Your task to perform on an android device: When is my next meeting? Image 0: 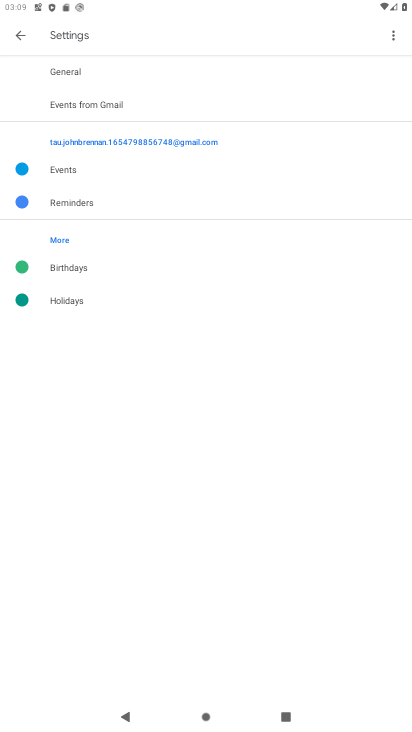
Step 0: click (13, 28)
Your task to perform on an android device: When is my next meeting? Image 1: 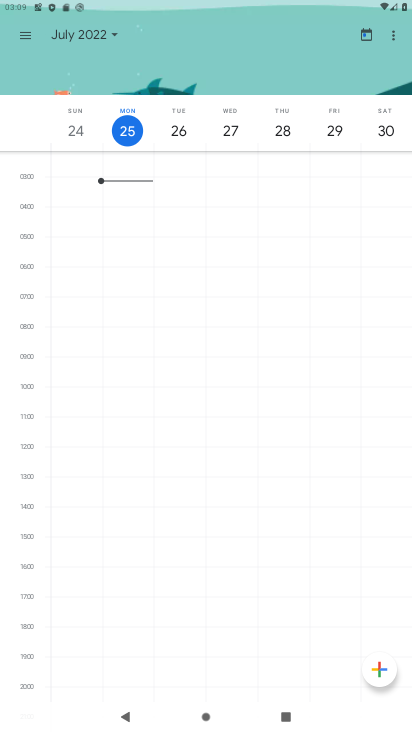
Step 1: click (32, 27)
Your task to perform on an android device: When is my next meeting? Image 2: 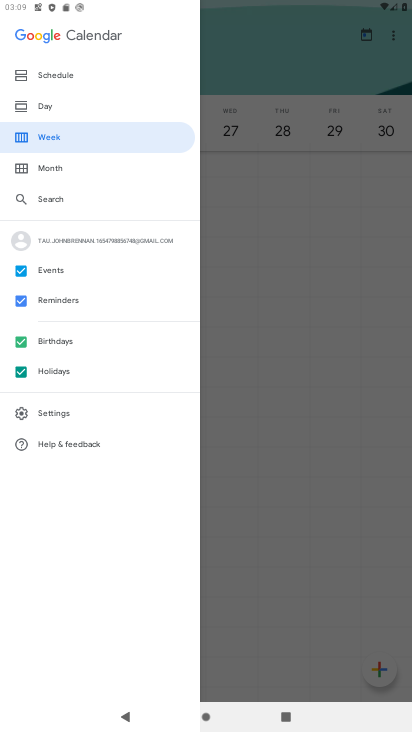
Step 2: click (36, 76)
Your task to perform on an android device: When is my next meeting? Image 3: 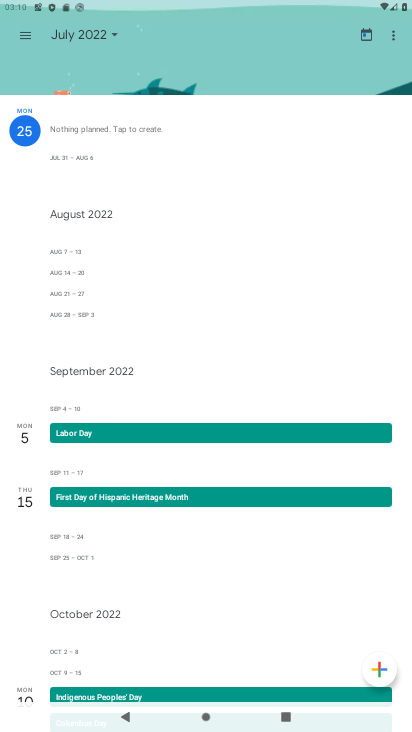
Step 3: drag from (252, 451) to (244, 247)
Your task to perform on an android device: When is my next meeting? Image 4: 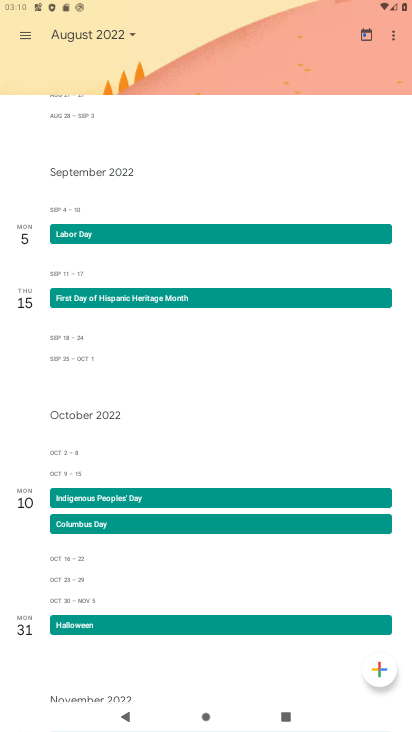
Step 4: drag from (222, 555) to (211, 205)
Your task to perform on an android device: When is my next meeting? Image 5: 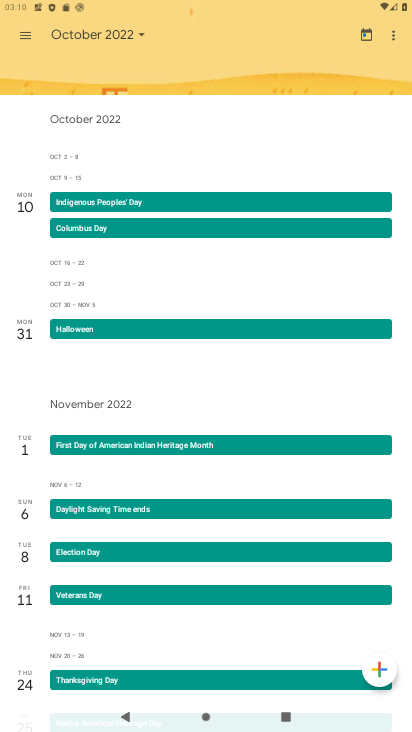
Step 5: drag from (210, 520) to (189, 249)
Your task to perform on an android device: When is my next meeting? Image 6: 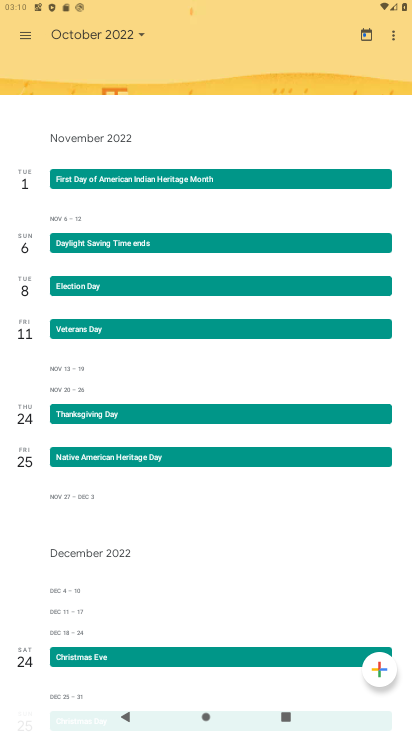
Step 6: drag from (205, 600) to (171, 253)
Your task to perform on an android device: When is my next meeting? Image 7: 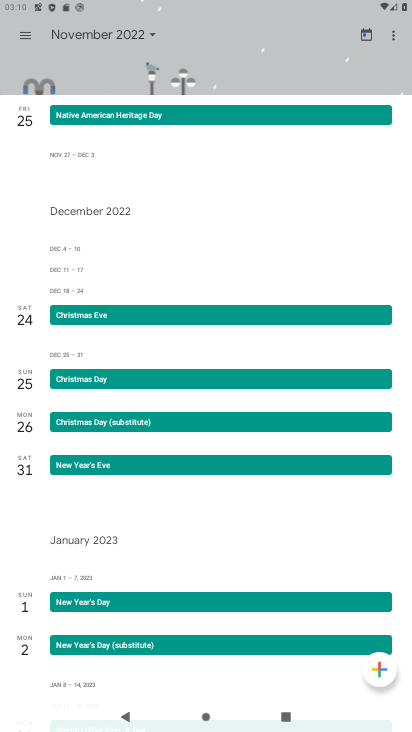
Step 7: drag from (166, 568) to (143, 323)
Your task to perform on an android device: When is my next meeting? Image 8: 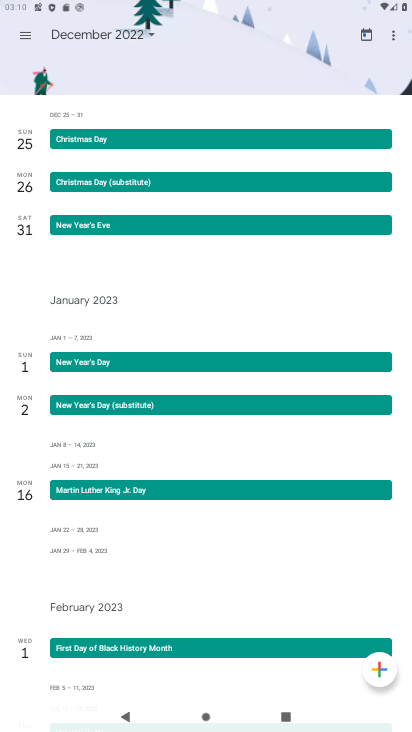
Step 8: drag from (153, 572) to (132, 254)
Your task to perform on an android device: When is my next meeting? Image 9: 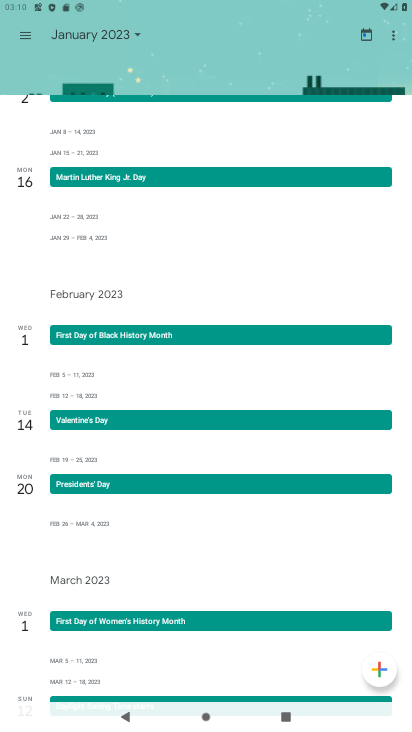
Step 9: drag from (202, 651) to (188, 326)
Your task to perform on an android device: When is my next meeting? Image 10: 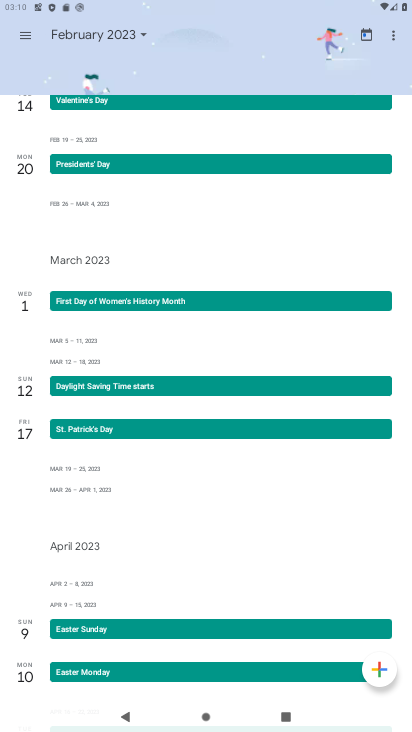
Step 10: drag from (176, 615) to (159, 275)
Your task to perform on an android device: When is my next meeting? Image 11: 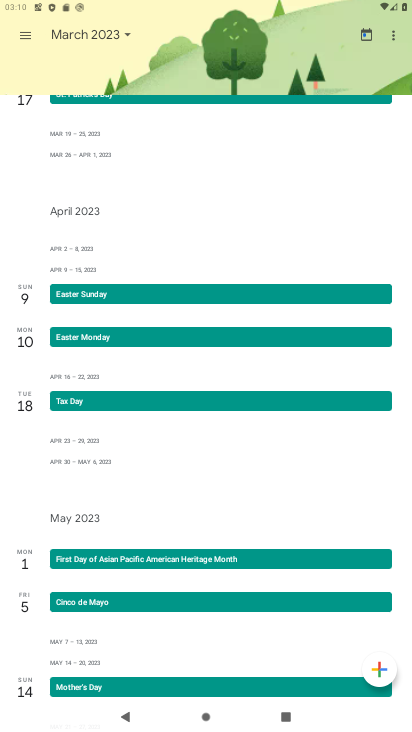
Step 11: drag from (184, 634) to (161, 344)
Your task to perform on an android device: When is my next meeting? Image 12: 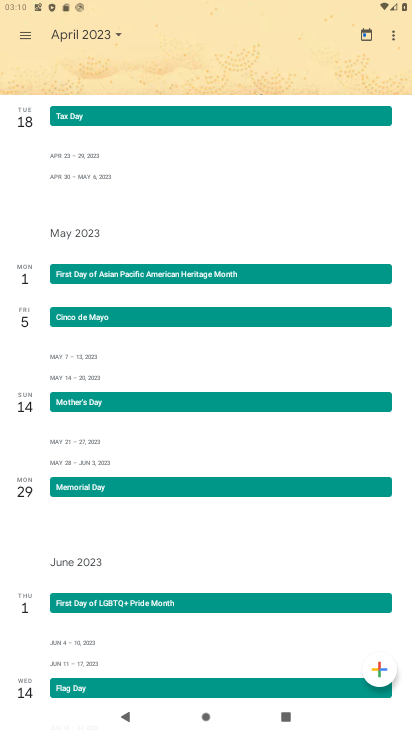
Step 12: drag from (149, 650) to (134, 316)
Your task to perform on an android device: When is my next meeting? Image 13: 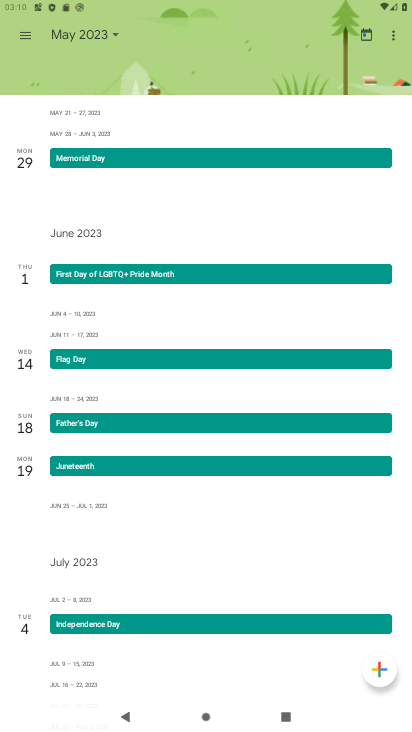
Step 13: drag from (179, 647) to (174, 346)
Your task to perform on an android device: When is my next meeting? Image 14: 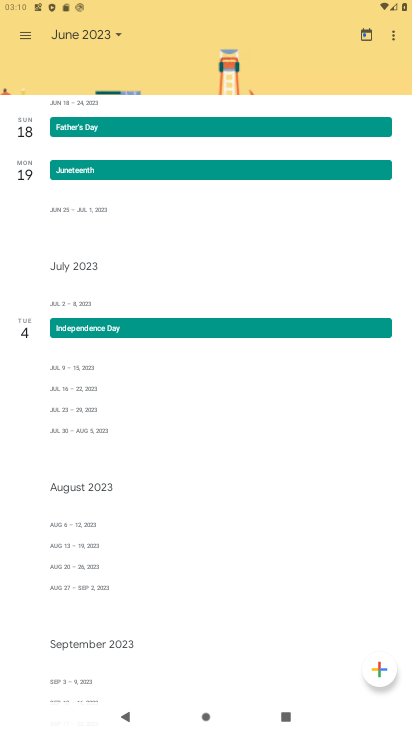
Step 14: drag from (161, 647) to (156, 323)
Your task to perform on an android device: When is my next meeting? Image 15: 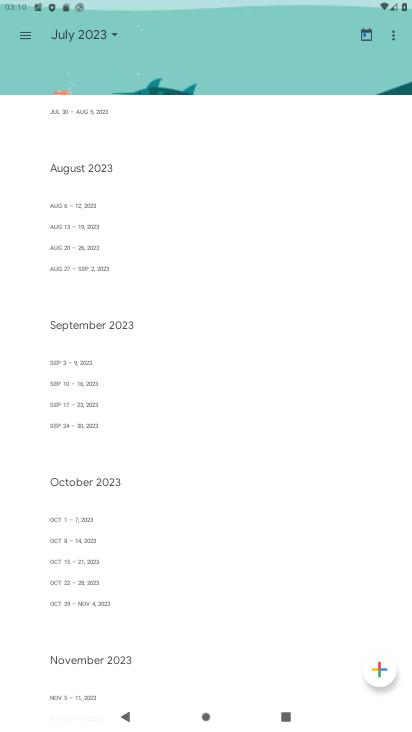
Step 15: drag from (174, 638) to (157, 340)
Your task to perform on an android device: When is my next meeting? Image 16: 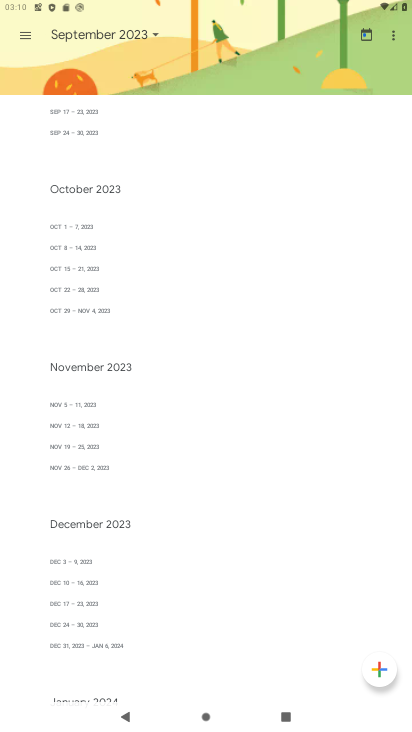
Step 16: drag from (141, 630) to (133, 359)
Your task to perform on an android device: When is my next meeting? Image 17: 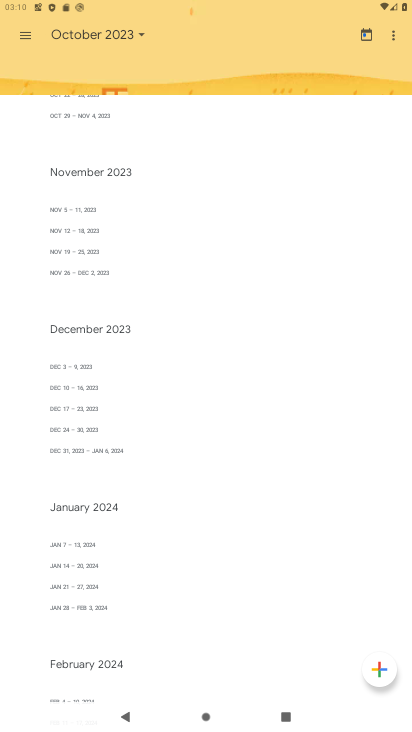
Step 17: drag from (157, 589) to (144, 351)
Your task to perform on an android device: When is my next meeting? Image 18: 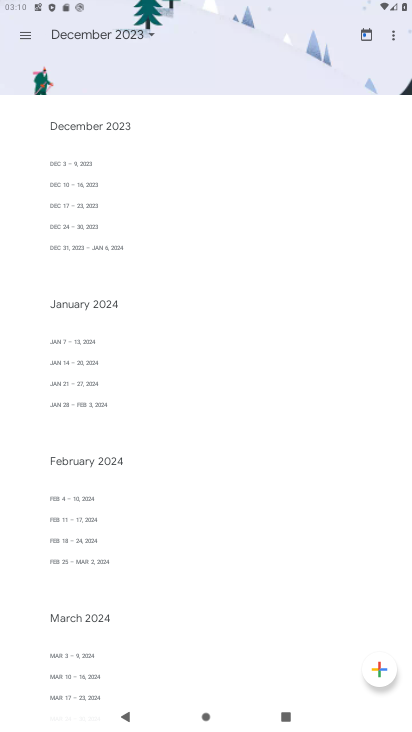
Step 18: drag from (142, 624) to (131, 287)
Your task to perform on an android device: When is my next meeting? Image 19: 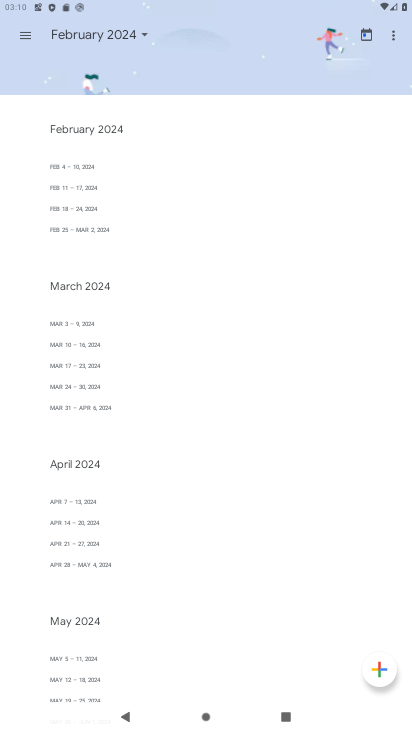
Step 19: drag from (150, 654) to (148, 342)
Your task to perform on an android device: When is my next meeting? Image 20: 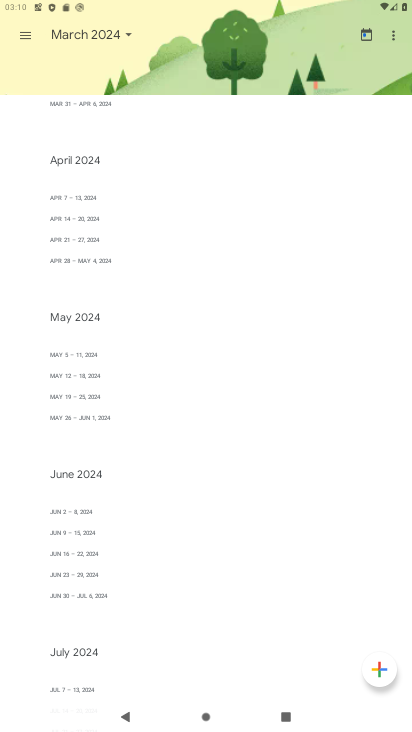
Step 20: drag from (142, 231) to (63, 706)
Your task to perform on an android device: When is my next meeting? Image 21: 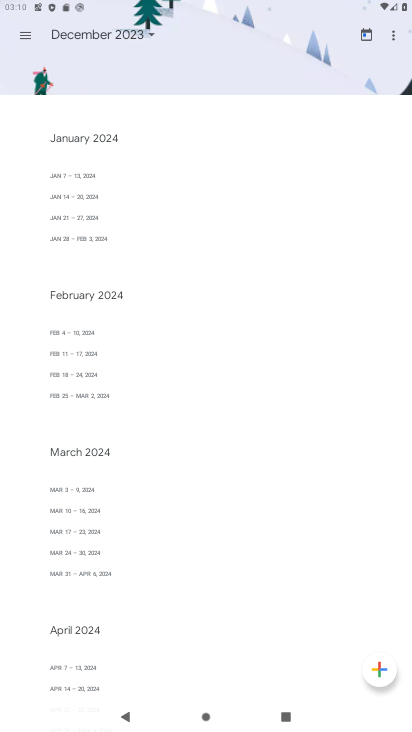
Step 21: drag from (205, 278) to (192, 712)
Your task to perform on an android device: When is my next meeting? Image 22: 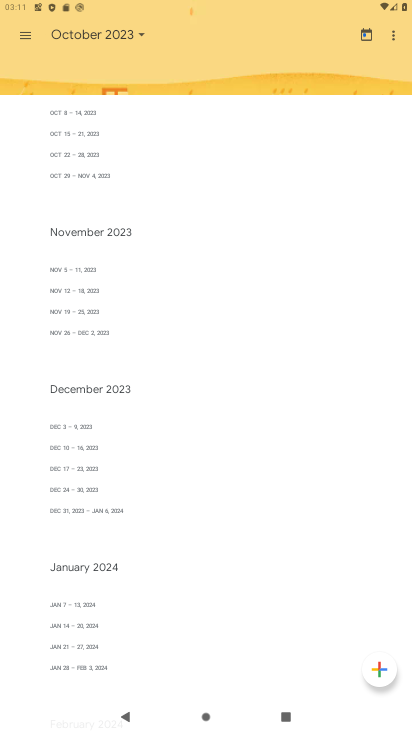
Step 22: drag from (188, 211) to (176, 639)
Your task to perform on an android device: When is my next meeting? Image 23: 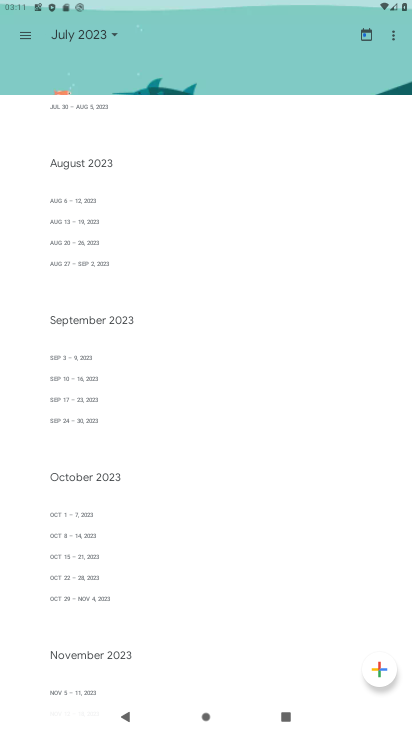
Step 23: drag from (135, 198) to (117, 589)
Your task to perform on an android device: When is my next meeting? Image 24: 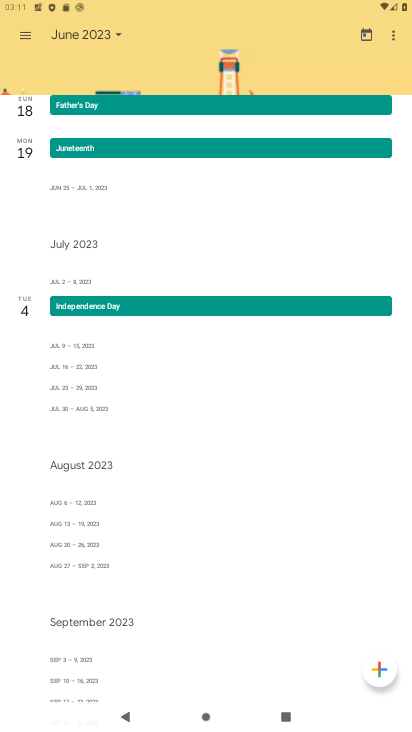
Step 24: drag from (132, 280) to (107, 581)
Your task to perform on an android device: When is my next meeting? Image 25: 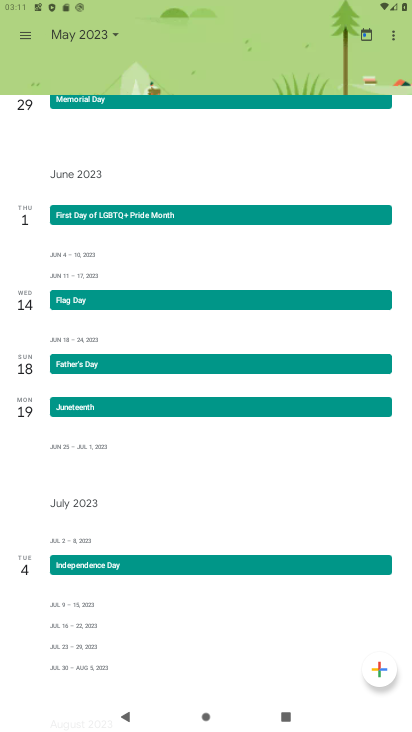
Step 25: click (31, 33)
Your task to perform on an android device: When is my next meeting? Image 26: 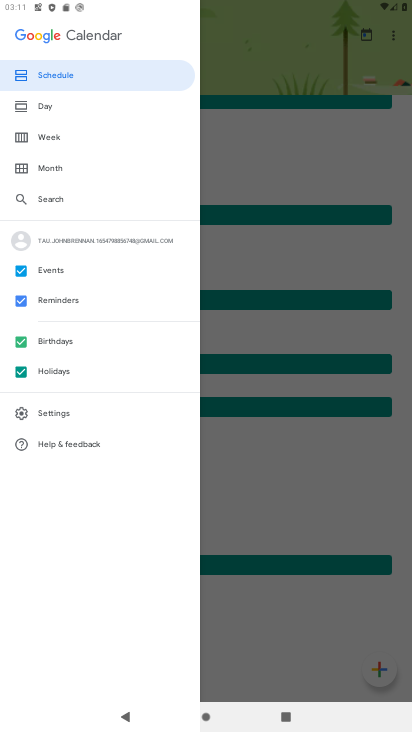
Step 26: click (18, 370)
Your task to perform on an android device: When is my next meeting? Image 27: 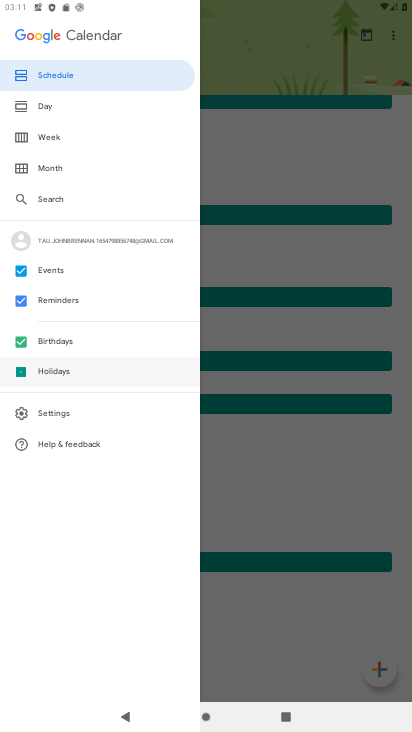
Step 27: click (22, 341)
Your task to perform on an android device: When is my next meeting? Image 28: 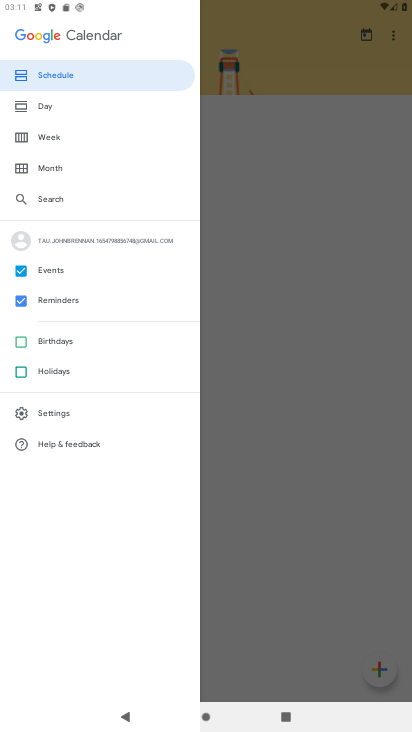
Step 28: click (64, 83)
Your task to perform on an android device: When is my next meeting? Image 29: 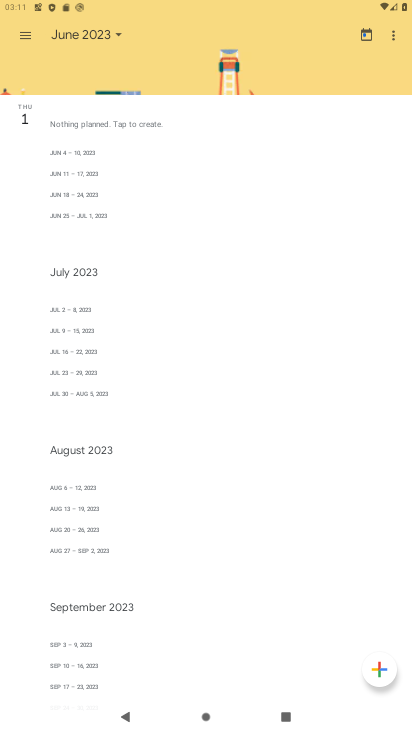
Step 29: drag from (156, 267) to (143, 603)
Your task to perform on an android device: When is my next meeting? Image 30: 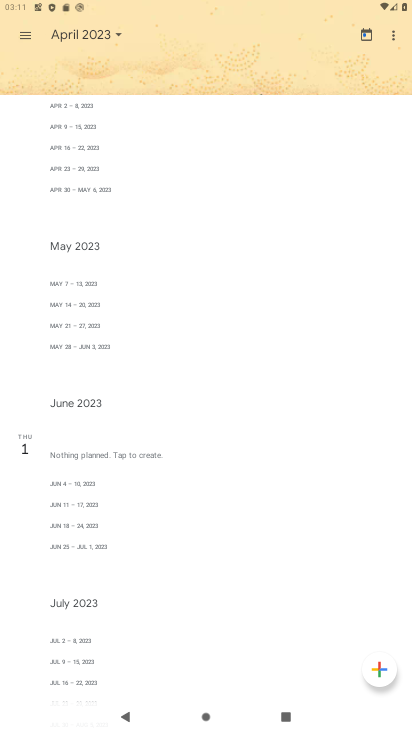
Step 30: drag from (131, 203) to (103, 542)
Your task to perform on an android device: When is my next meeting? Image 31: 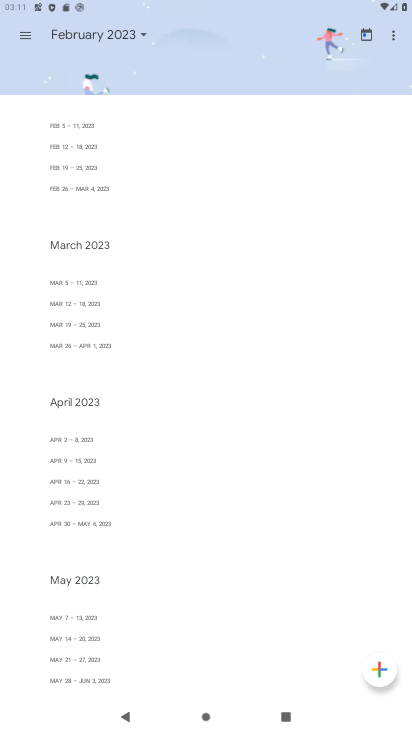
Step 31: drag from (114, 229) to (95, 628)
Your task to perform on an android device: When is my next meeting? Image 32: 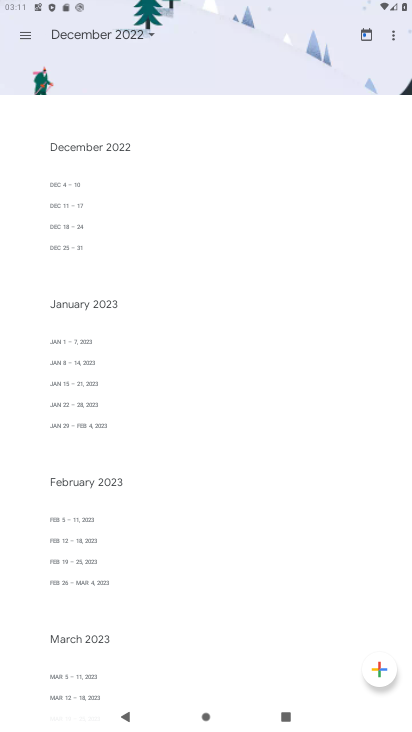
Step 32: drag from (114, 194) to (69, 560)
Your task to perform on an android device: When is my next meeting? Image 33: 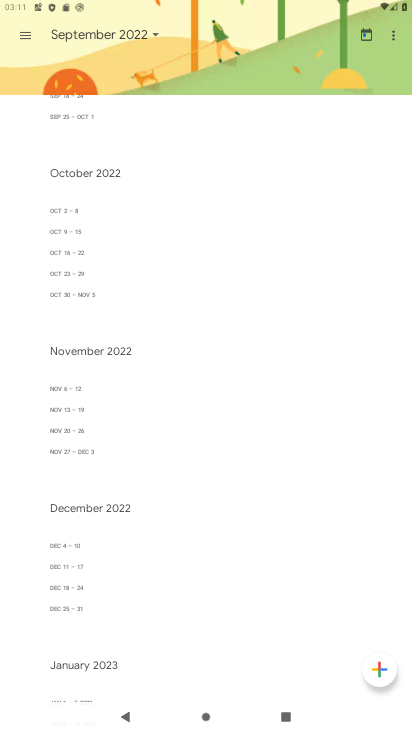
Step 33: drag from (99, 194) to (65, 542)
Your task to perform on an android device: When is my next meeting? Image 34: 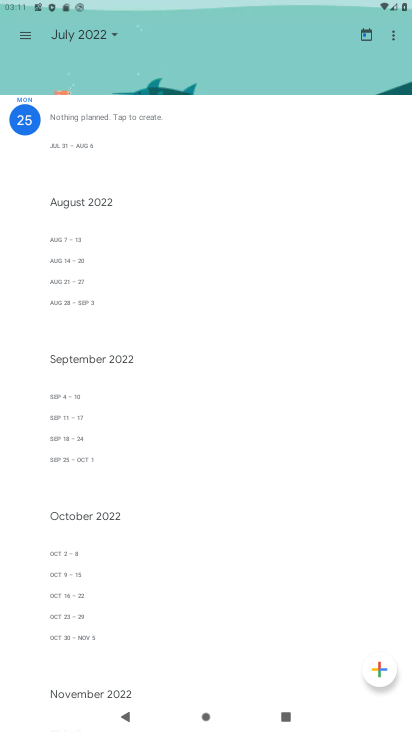
Step 34: drag from (98, 197) to (58, 565)
Your task to perform on an android device: When is my next meeting? Image 35: 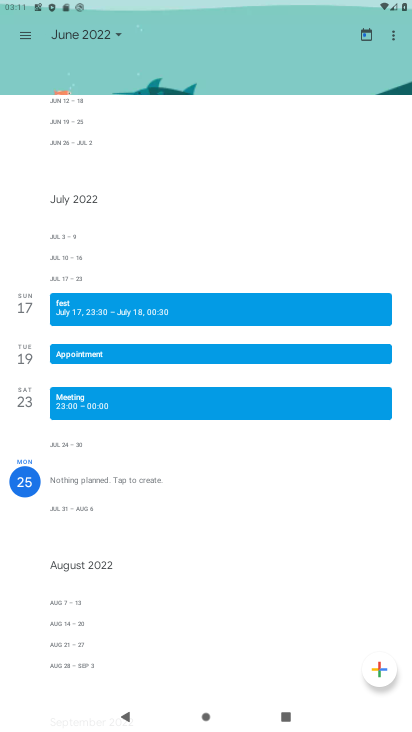
Step 35: click (81, 400)
Your task to perform on an android device: When is my next meeting? Image 36: 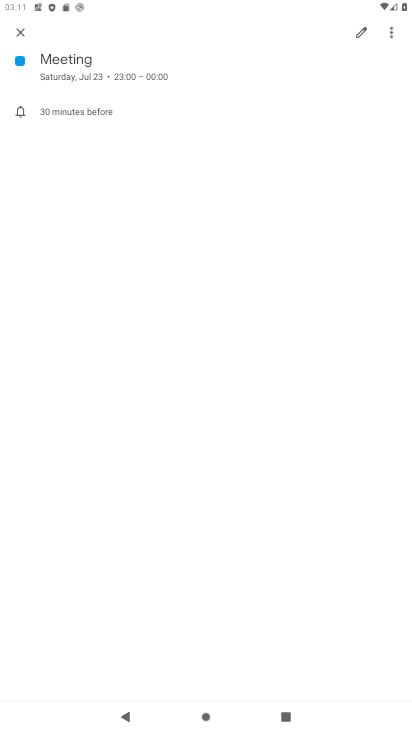
Step 36: task complete